Your task to perform on an android device: visit the assistant section in the google photos Image 0: 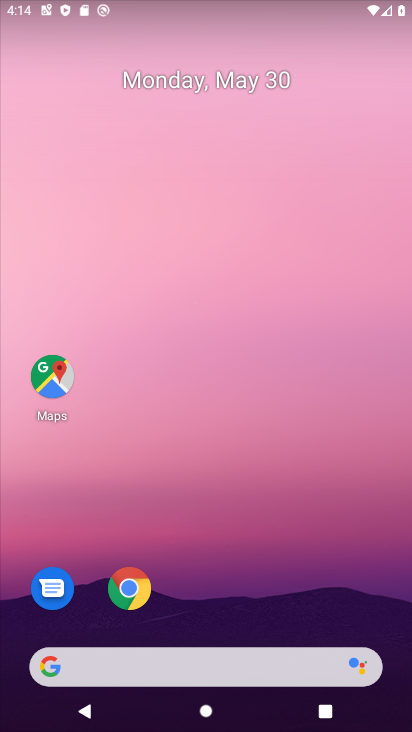
Step 0: press home button
Your task to perform on an android device: visit the assistant section in the google photos Image 1: 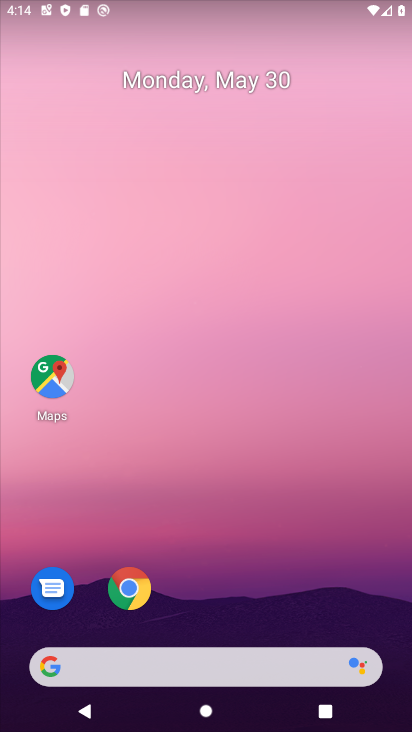
Step 1: drag from (304, 618) to (270, 119)
Your task to perform on an android device: visit the assistant section in the google photos Image 2: 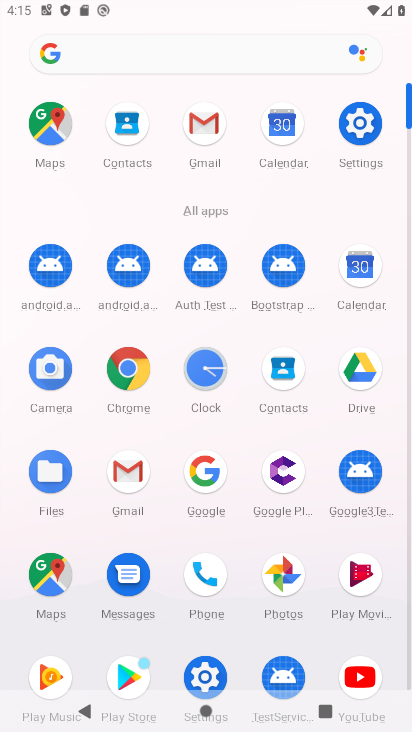
Step 2: click (283, 556)
Your task to perform on an android device: visit the assistant section in the google photos Image 3: 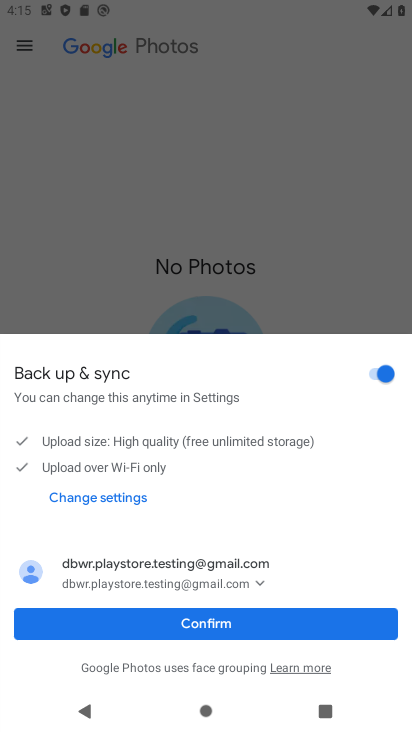
Step 3: click (258, 628)
Your task to perform on an android device: visit the assistant section in the google photos Image 4: 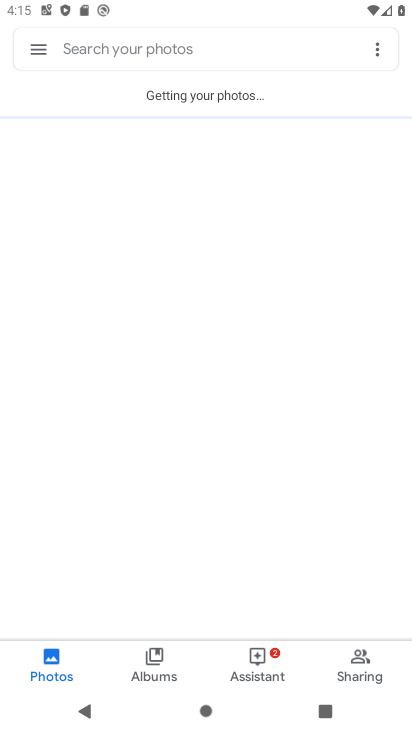
Step 4: click (261, 656)
Your task to perform on an android device: visit the assistant section in the google photos Image 5: 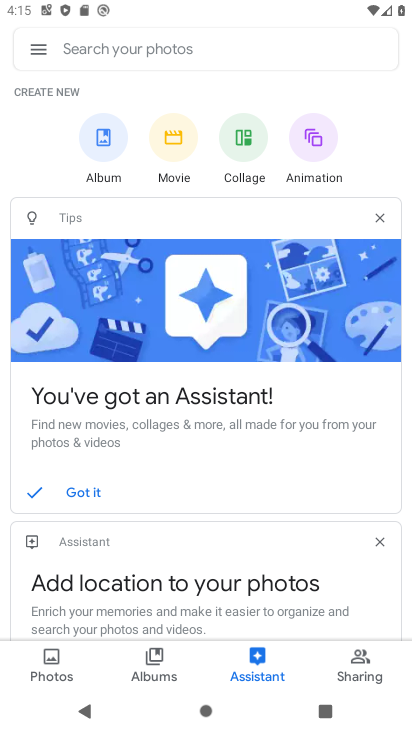
Step 5: task complete